Your task to perform on an android device: Go to wifi settings Image 0: 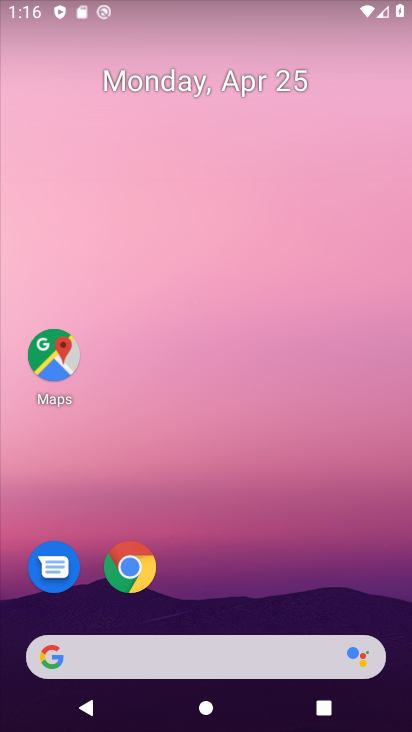
Step 0: drag from (224, 6) to (259, 650)
Your task to perform on an android device: Go to wifi settings Image 1: 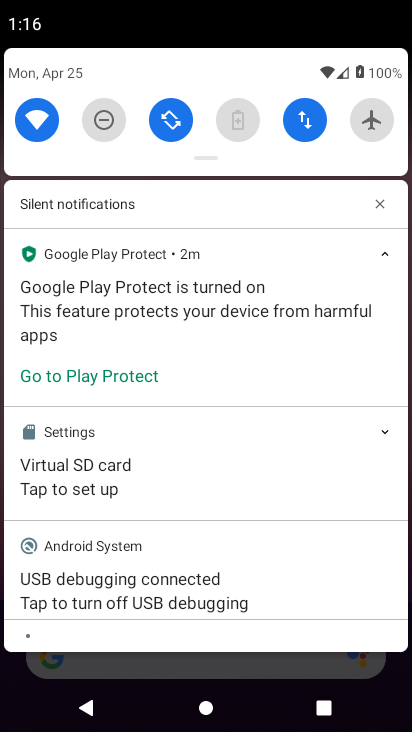
Step 1: click (38, 117)
Your task to perform on an android device: Go to wifi settings Image 2: 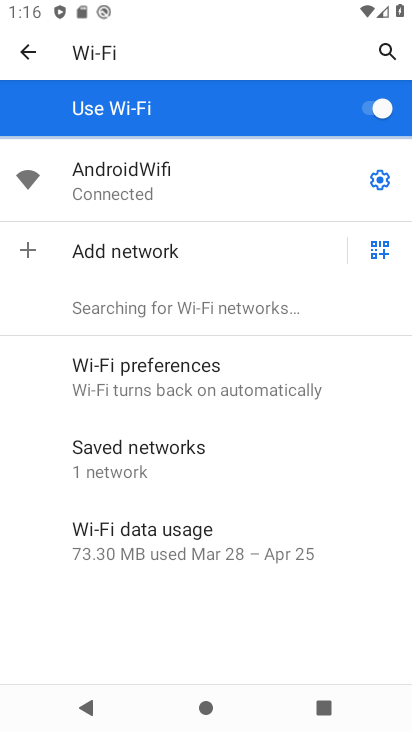
Step 2: task complete